Your task to perform on an android device: Open accessibility settings Image 0: 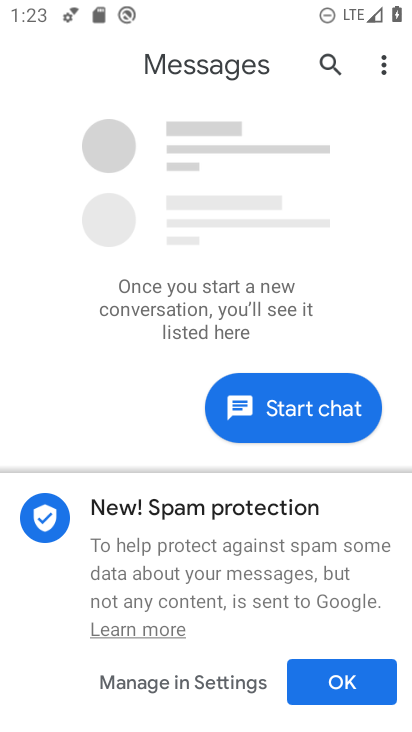
Step 0: press home button
Your task to perform on an android device: Open accessibility settings Image 1: 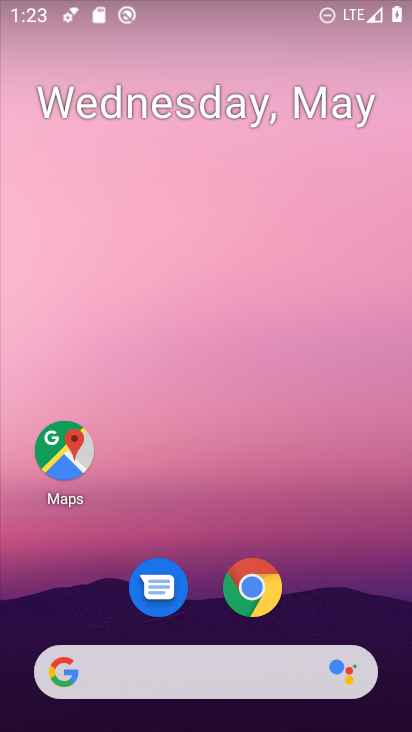
Step 1: drag from (309, 573) to (256, 215)
Your task to perform on an android device: Open accessibility settings Image 2: 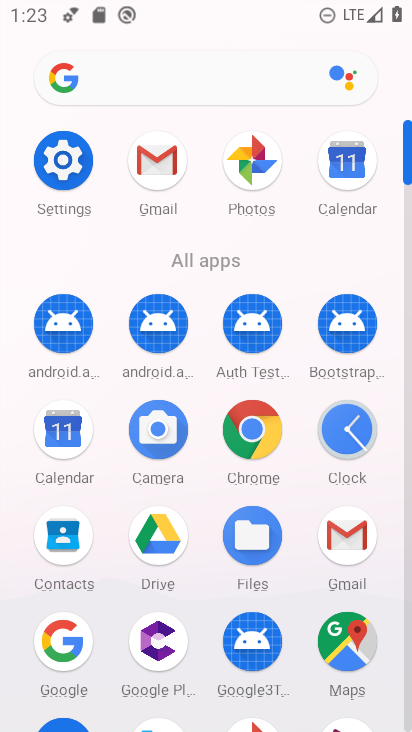
Step 2: click (77, 199)
Your task to perform on an android device: Open accessibility settings Image 3: 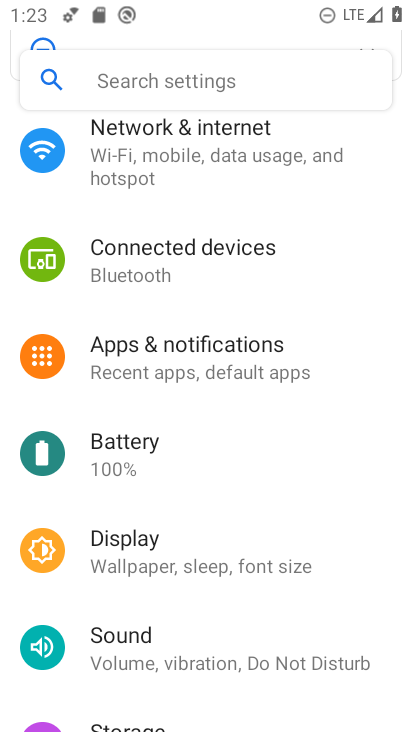
Step 3: drag from (197, 599) to (243, 279)
Your task to perform on an android device: Open accessibility settings Image 4: 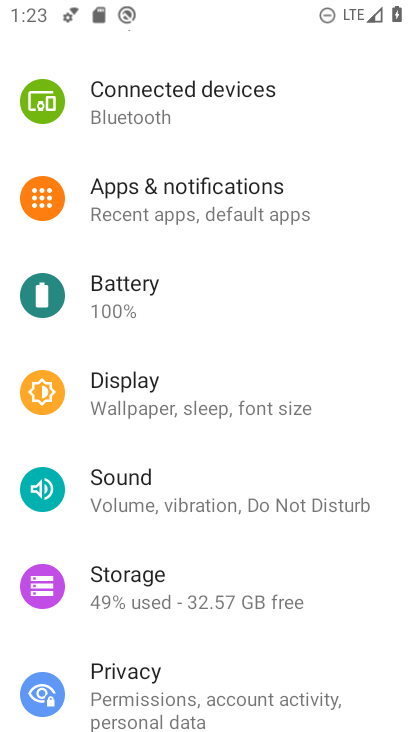
Step 4: drag from (103, 712) to (145, 347)
Your task to perform on an android device: Open accessibility settings Image 5: 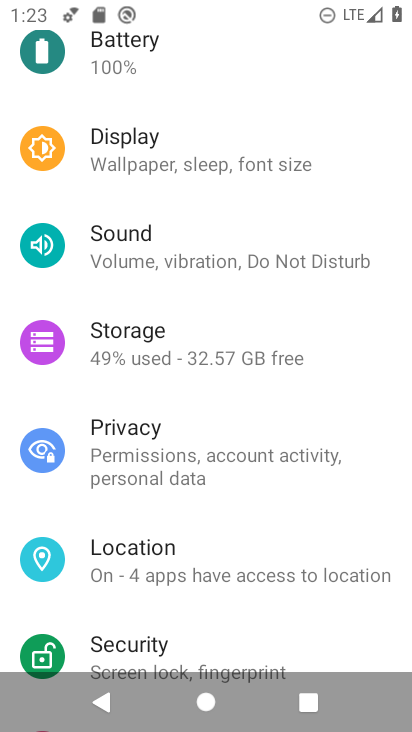
Step 5: drag from (150, 596) to (145, 350)
Your task to perform on an android device: Open accessibility settings Image 6: 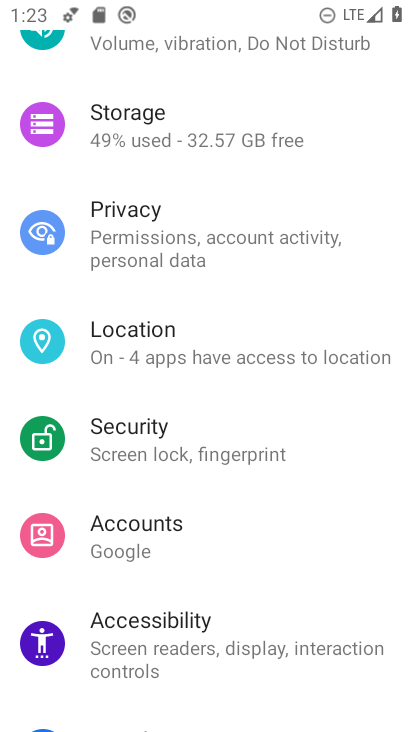
Step 6: click (137, 631)
Your task to perform on an android device: Open accessibility settings Image 7: 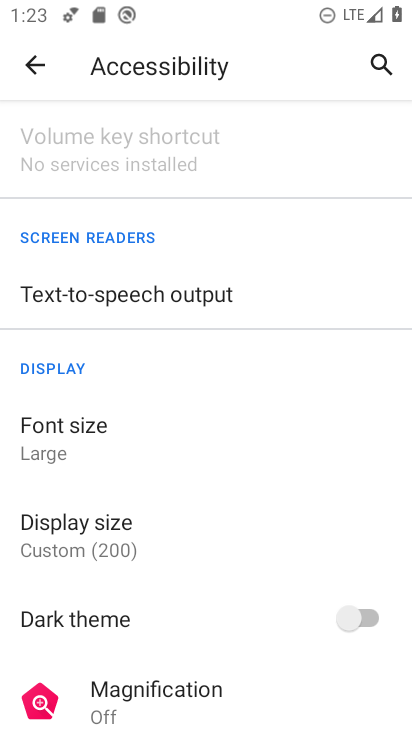
Step 7: task complete